Your task to perform on an android device: Open the stopwatch Image 0: 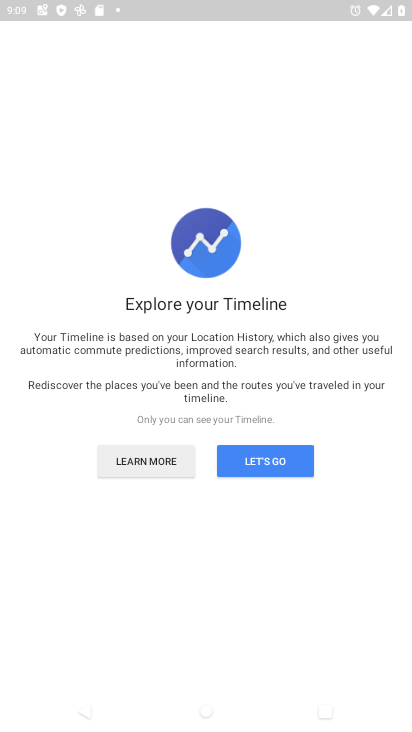
Step 0: press home button
Your task to perform on an android device: Open the stopwatch Image 1: 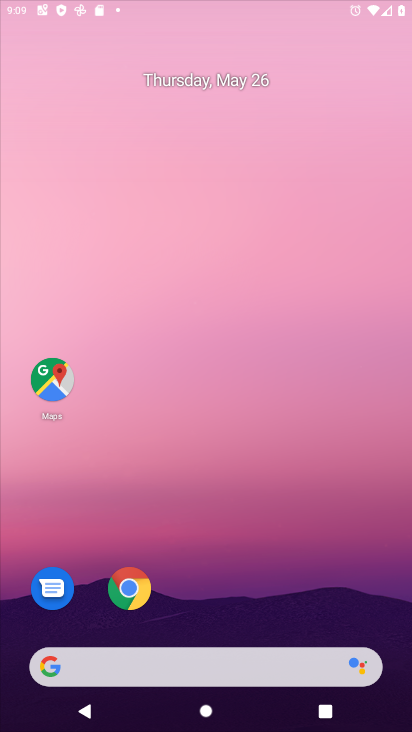
Step 1: drag from (385, 648) to (305, 117)
Your task to perform on an android device: Open the stopwatch Image 2: 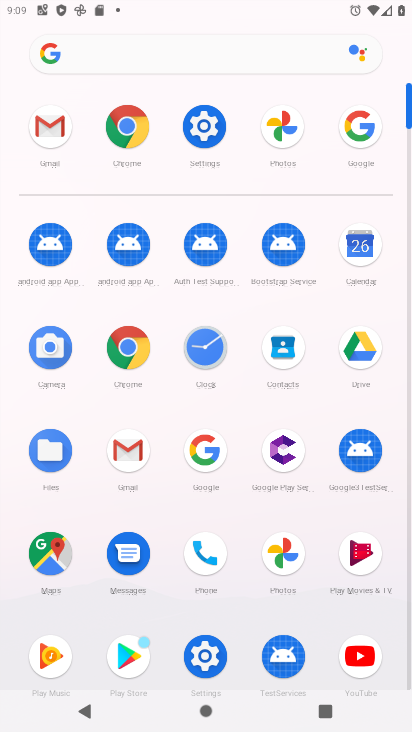
Step 2: click (196, 329)
Your task to perform on an android device: Open the stopwatch Image 3: 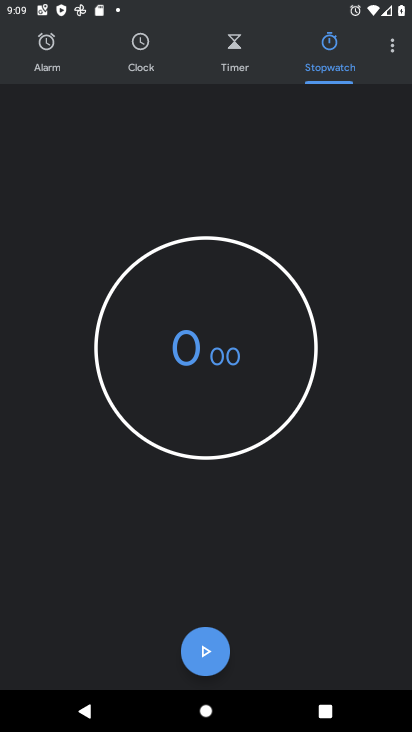
Step 3: task complete